Your task to perform on an android device: Open settings Image 0: 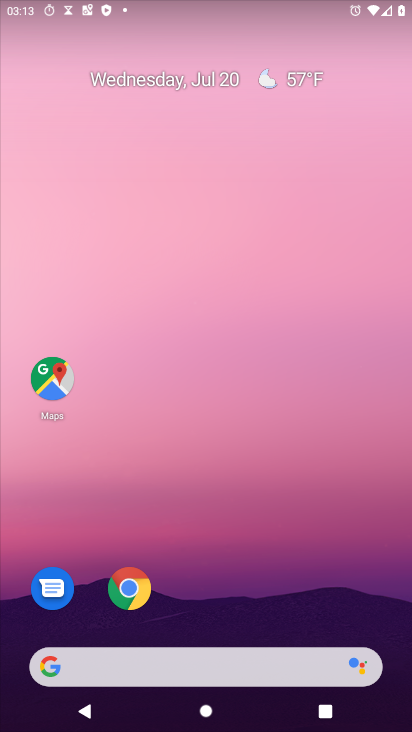
Step 0: drag from (260, 546) to (184, 21)
Your task to perform on an android device: Open settings Image 1: 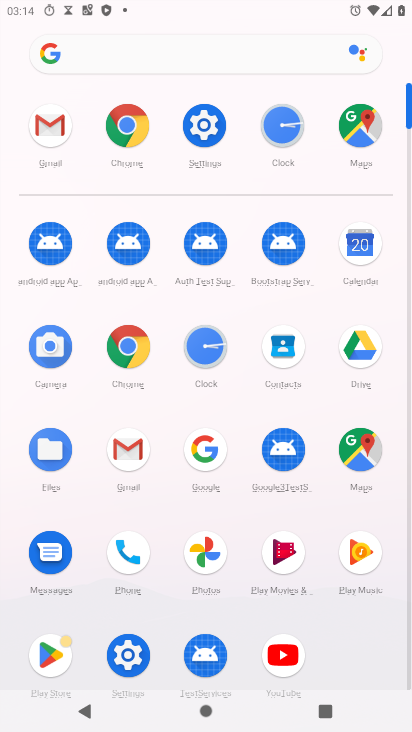
Step 1: click (207, 139)
Your task to perform on an android device: Open settings Image 2: 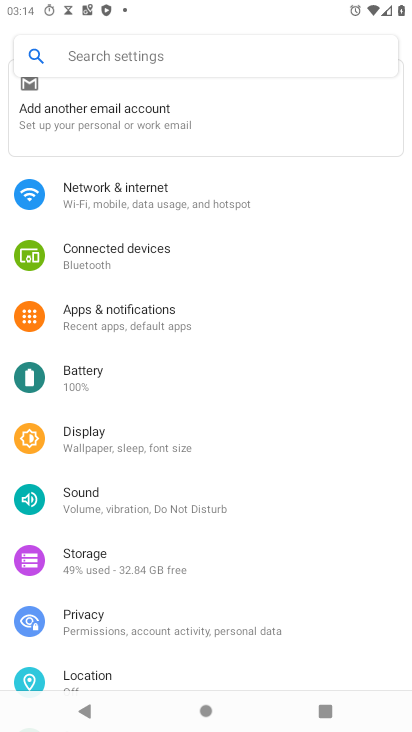
Step 2: task complete